Your task to perform on an android device: Go to internet settings Image 0: 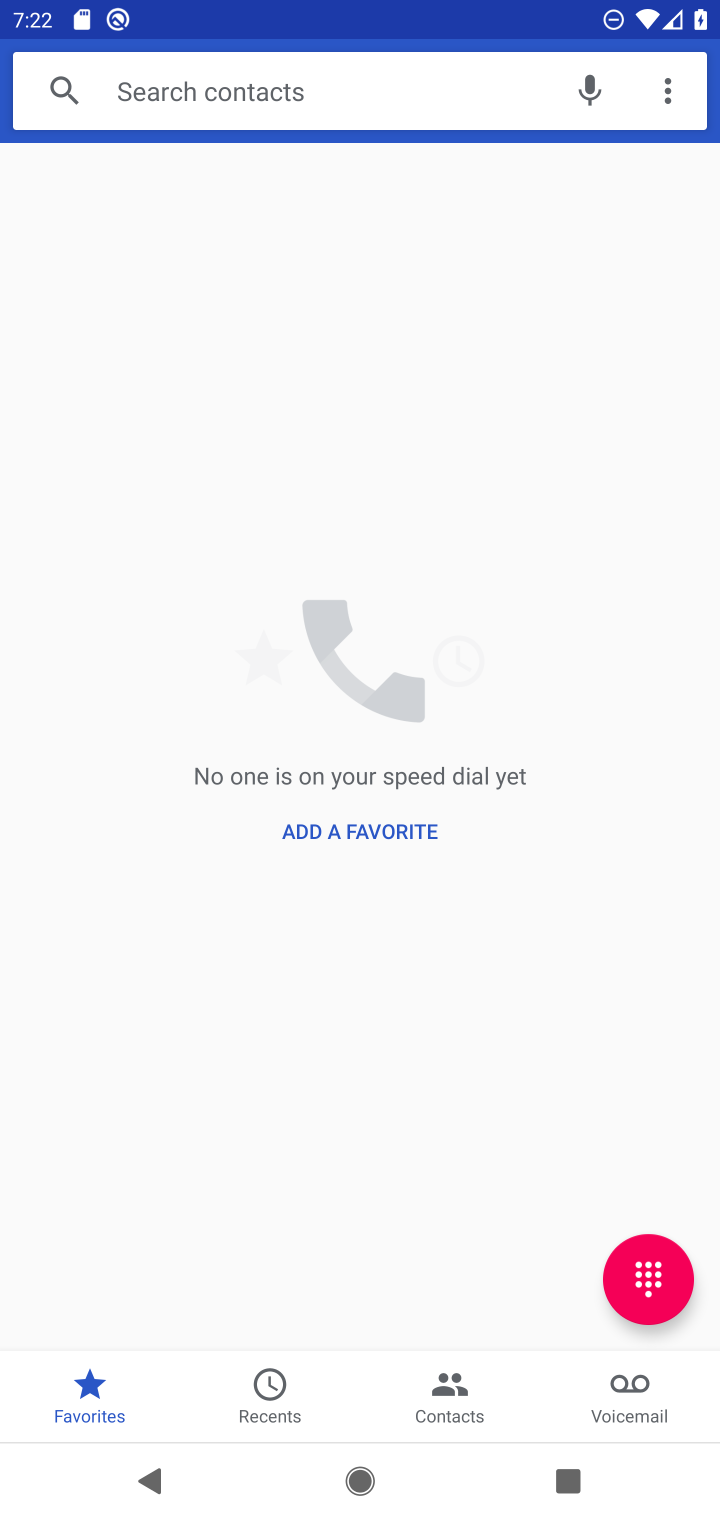
Step 0: press home button
Your task to perform on an android device: Go to internet settings Image 1: 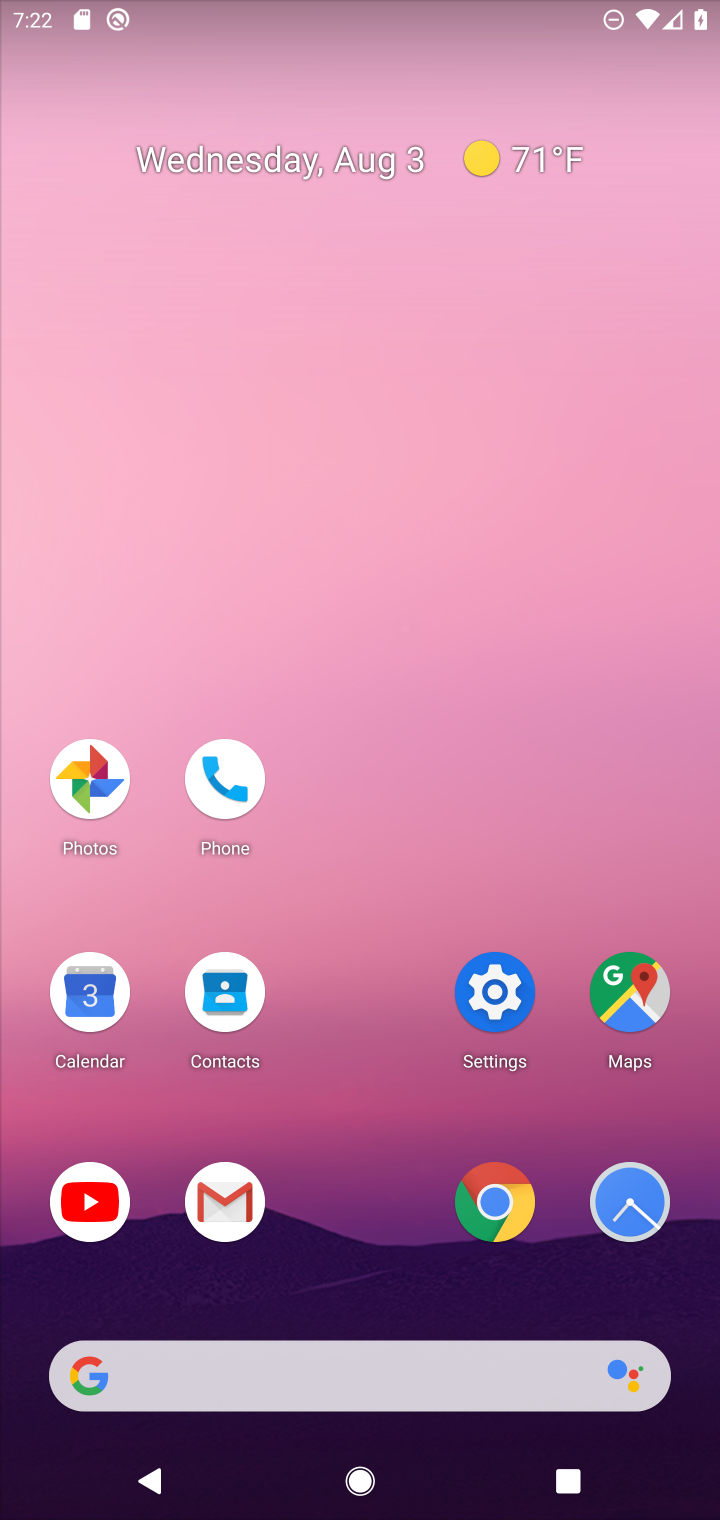
Step 1: click (495, 990)
Your task to perform on an android device: Go to internet settings Image 2: 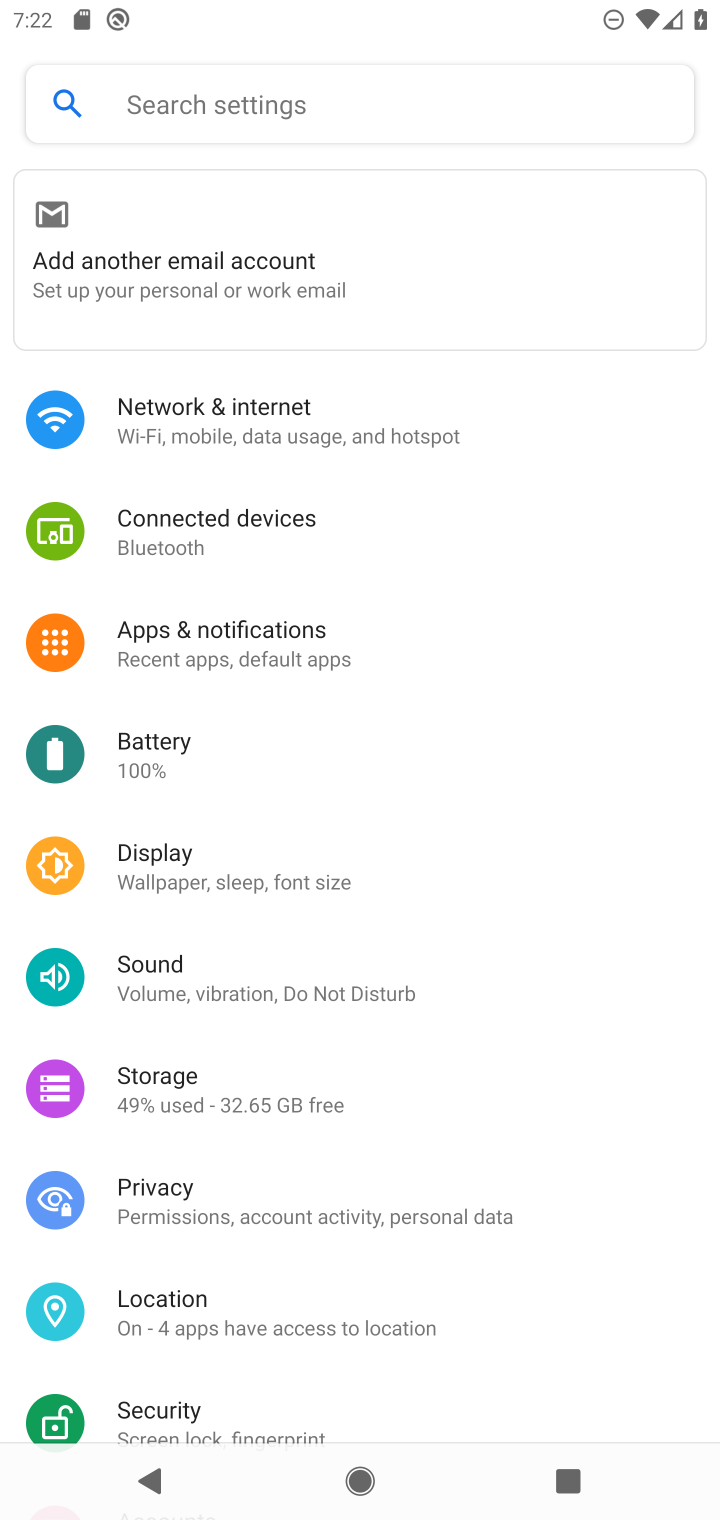
Step 2: click (213, 399)
Your task to perform on an android device: Go to internet settings Image 3: 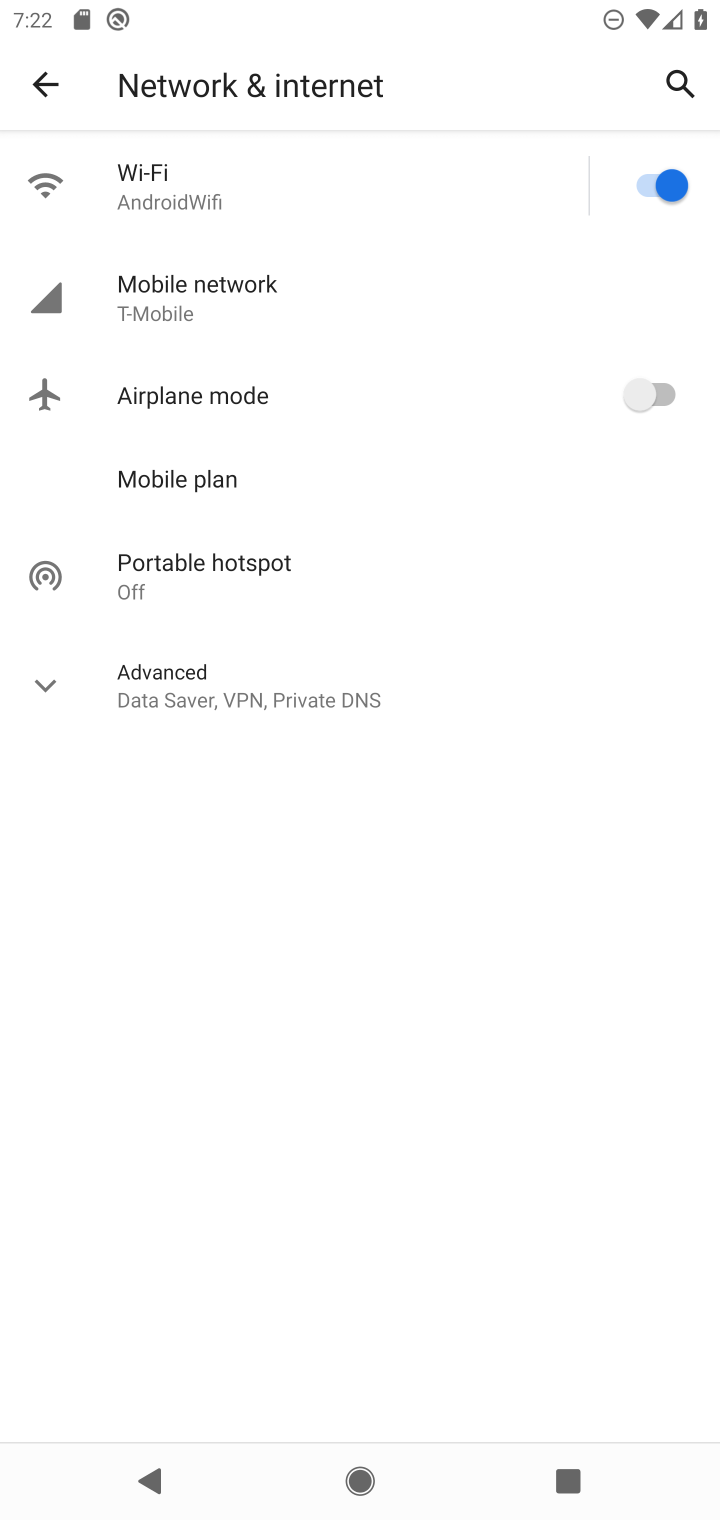
Step 3: task complete